Your task to perform on an android device: find photos in the google photos app Image 0: 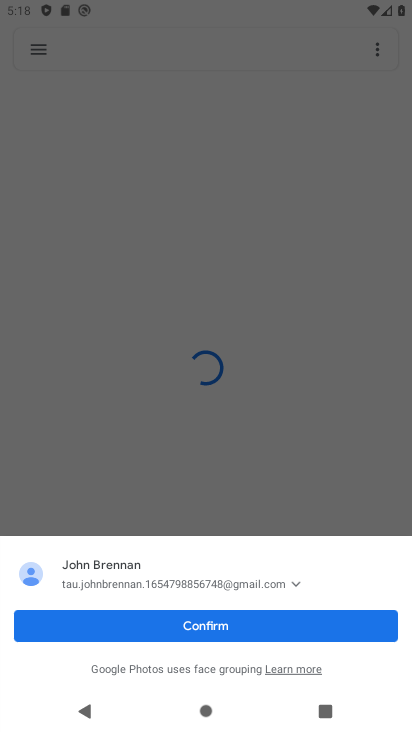
Step 0: click (214, 630)
Your task to perform on an android device: find photos in the google photos app Image 1: 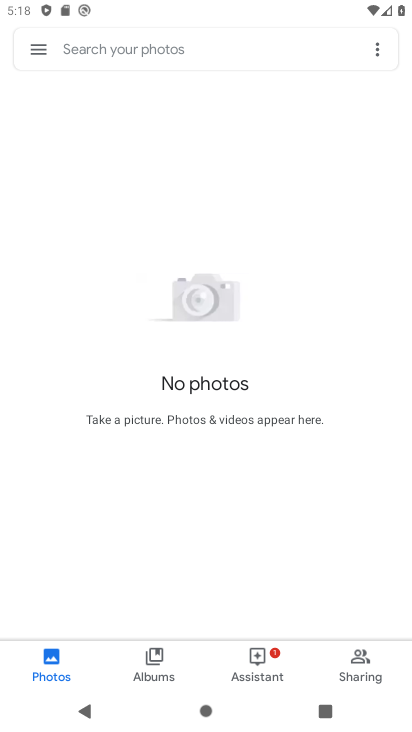
Step 1: task complete